Your task to perform on an android device: turn off translation in the chrome app Image 0: 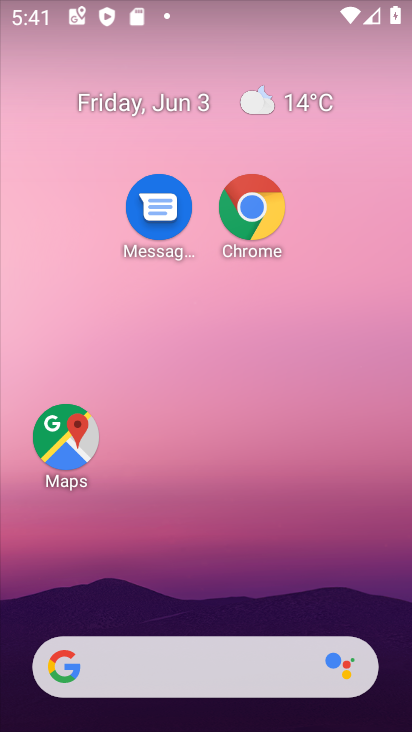
Step 0: click (246, 229)
Your task to perform on an android device: turn off translation in the chrome app Image 1: 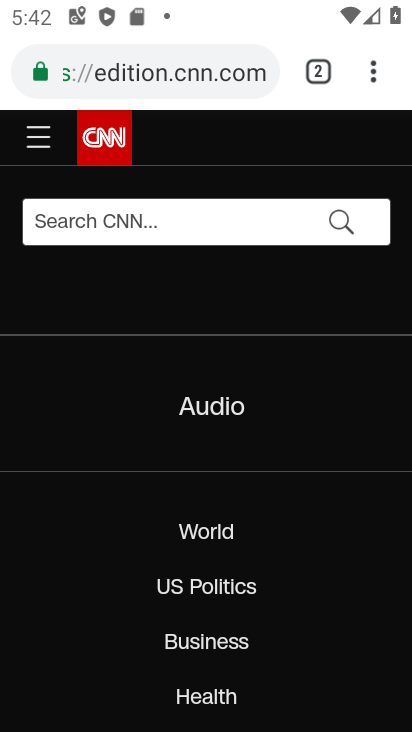
Step 1: click (380, 77)
Your task to perform on an android device: turn off translation in the chrome app Image 2: 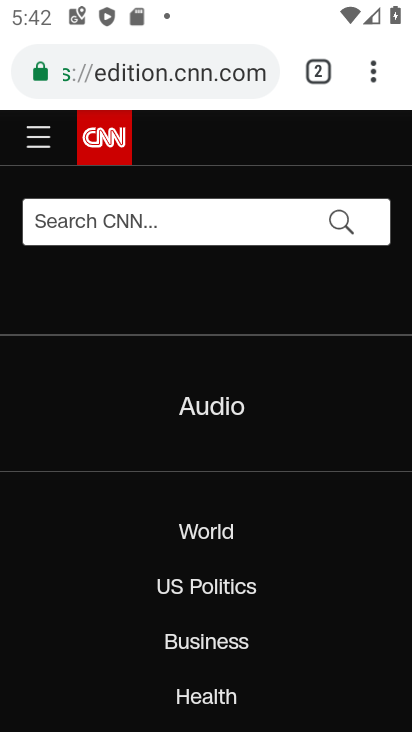
Step 2: click (370, 78)
Your task to perform on an android device: turn off translation in the chrome app Image 3: 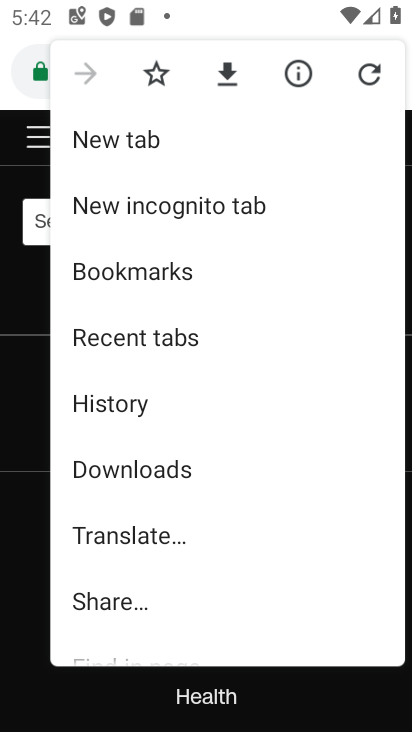
Step 3: drag from (149, 527) to (166, 324)
Your task to perform on an android device: turn off translation in the chrome app Image 4: 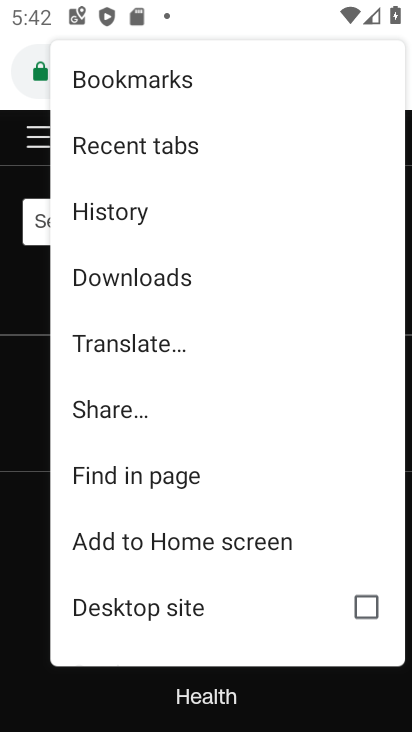
Step 4: drag from (175, 527) to (179, 371)
Your task to perform on an android device: turn off translation in the chrome app Image 5: 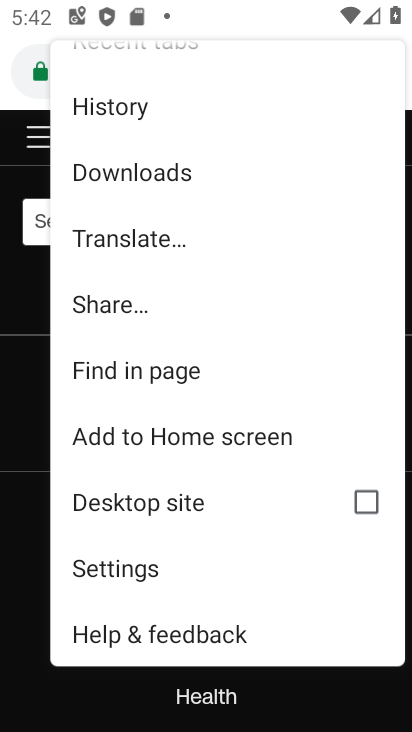
Step 5: click (104, 577)
Your task to perform on an android device: turn off translation in the chrome app Image 6: 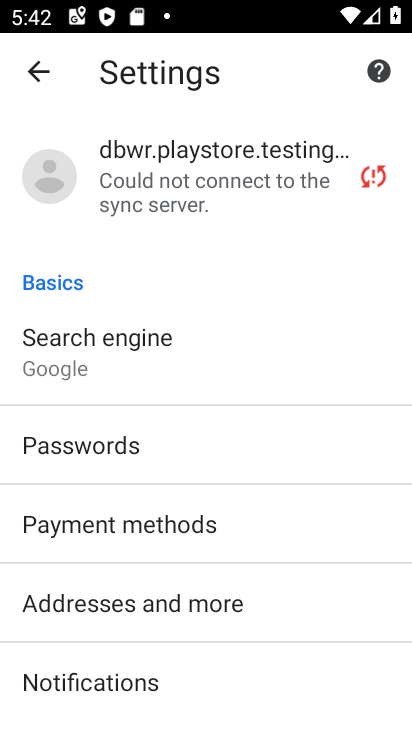
Step 6: drag from (116, 626) to (81, 401)
Your task to perform on an android device: turn off translation in the chrome app Image 7: 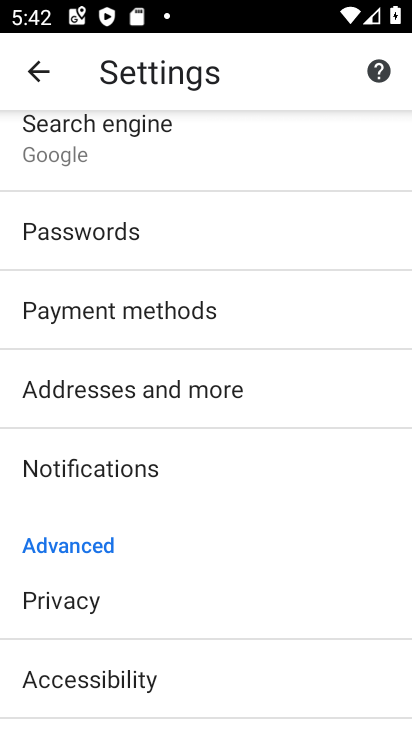
Step 7: drag from (127, 634) to (146, 440)
Your task to perform on an android device: turn off translation in the chrome app Image 8: 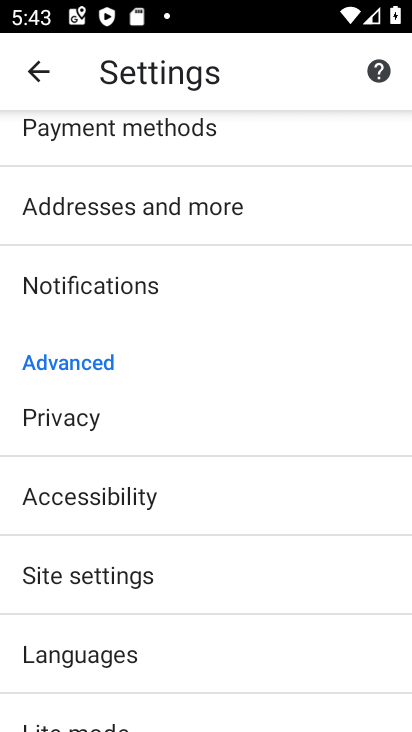
Step 8: drag from (173, 674) to (167, 461)
Your task to perform on an android device: turn off translation in the chrome app Image 9: 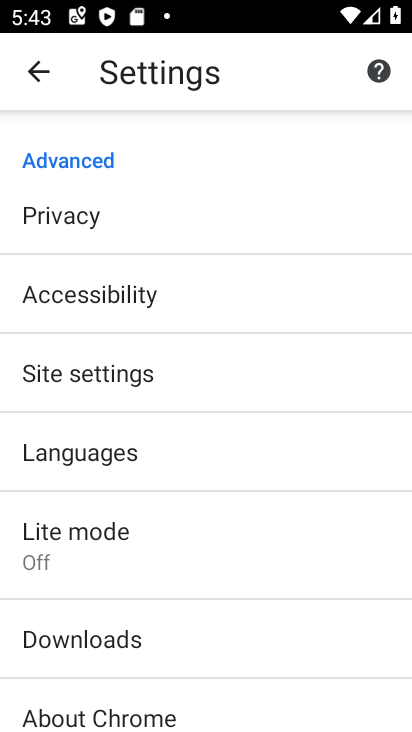
Step 9: click (67, 455)
Your task to perform on an android device: turn off translation in the chrome app Image 10: 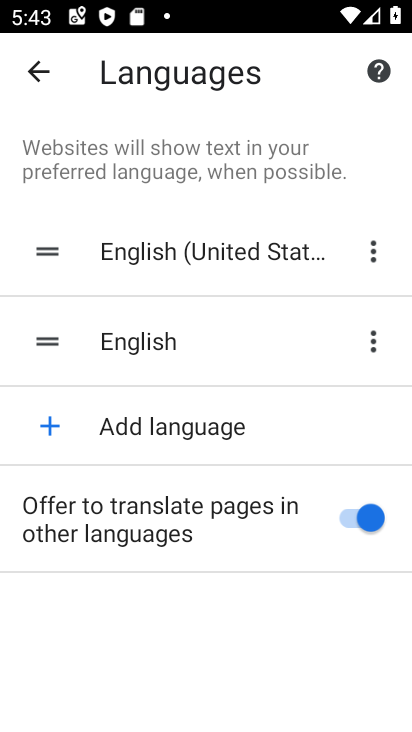
Step 10: click (340, 528)
Your task to perform on an android device: turn off translation in the chrome app Image 11: 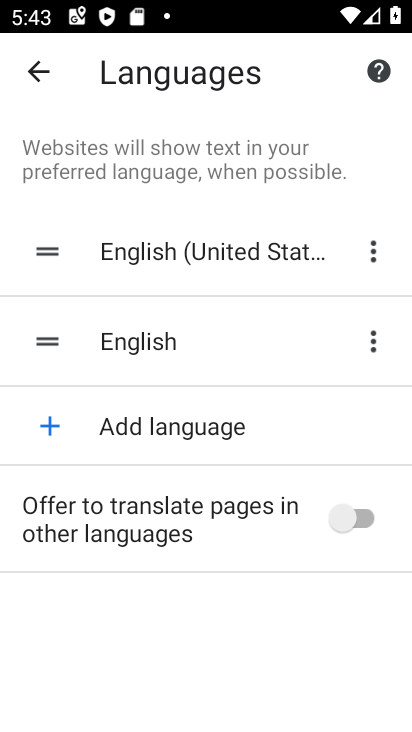
Step 11: task complete